Your task to perform on an android device: What is the recent news? Image 0: 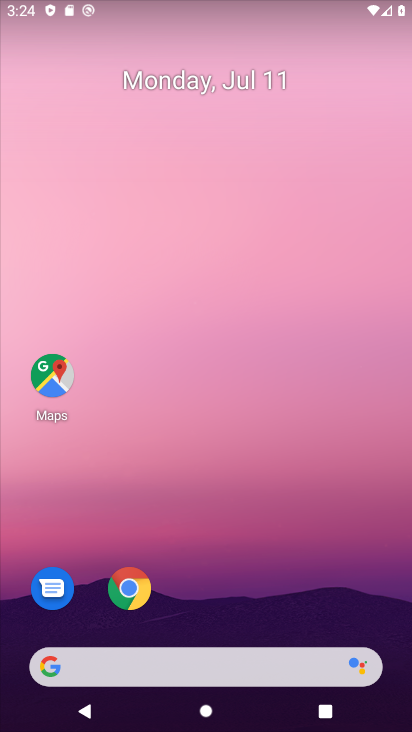
Step 0: drag from (5, 220) to (407, 345)
Your task to perform on an android device: What is the recent news? Image 1: 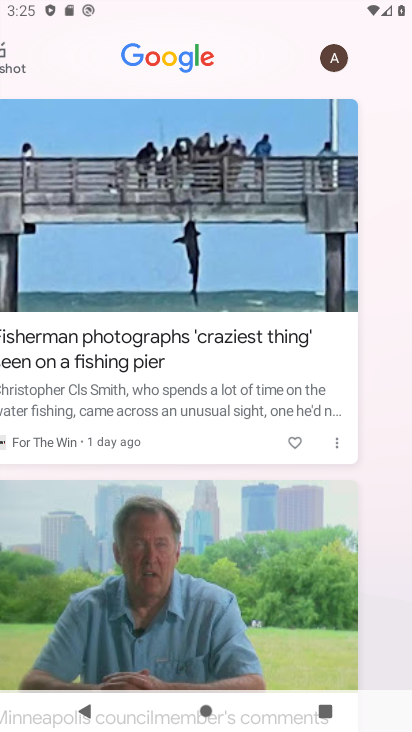
Step 1: task complete